Your task to perform on an android device: Open notification settings Image 0: 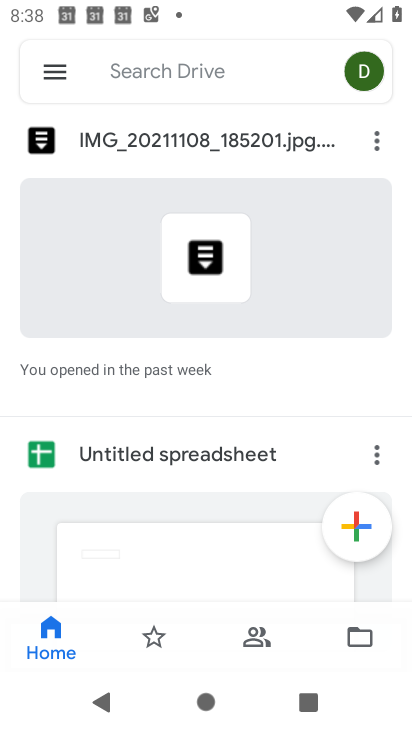
Step 0: press home button
Your task to perform on an android device: Open notification settings Image 1: 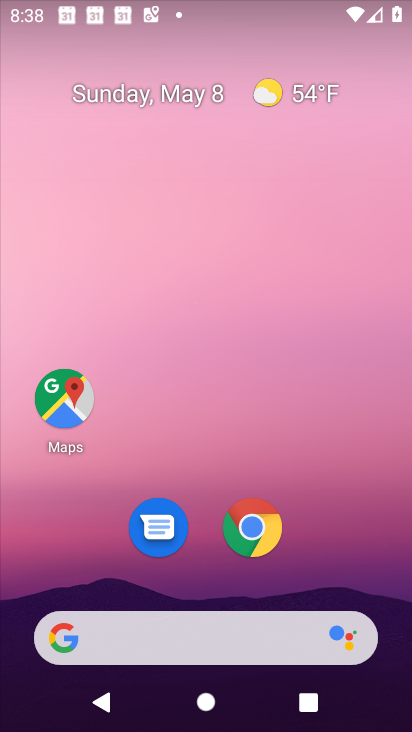
Step 1: drag from (329, 570) to (203, 8)
Your task to perform on an android device: Open notification settings Image 2: 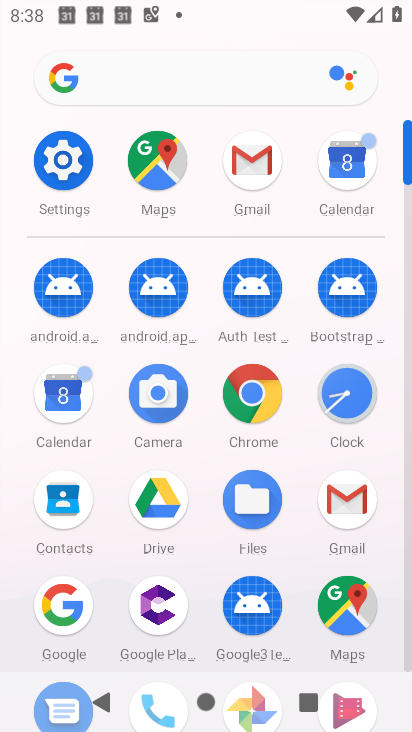
Step 2: click (61, 175)
Your task to perform on an android device: Open notification settings Image 3: 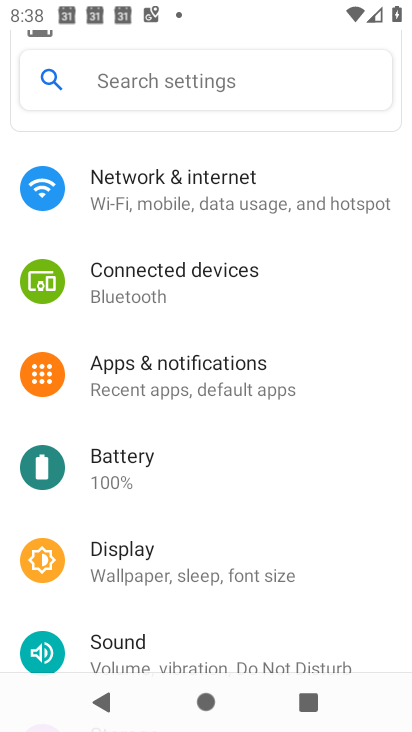
Step 3: click (162, 362)
Your task to perform on an android device: Open notification settings Image 4: 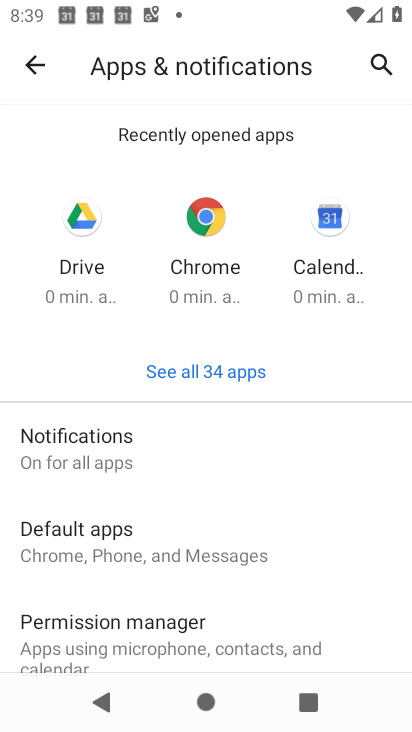
Step 4: click (121, 444)
Your task to perform on an android device: Open notification settings Image 5: 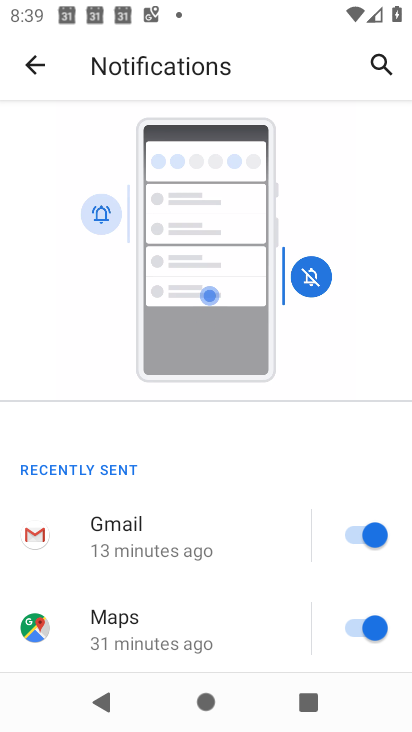
Step 5: task complete